Your task to perform on an android device: See recent photos Image 0: 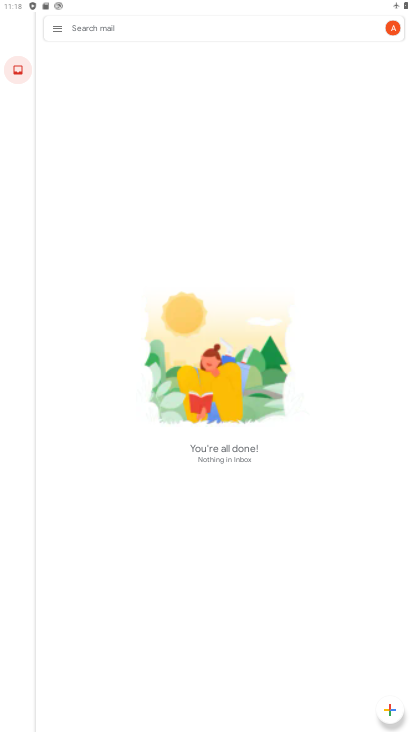
Step 0: press home button
Your task to perform on an android device: See recent photos Image 1: 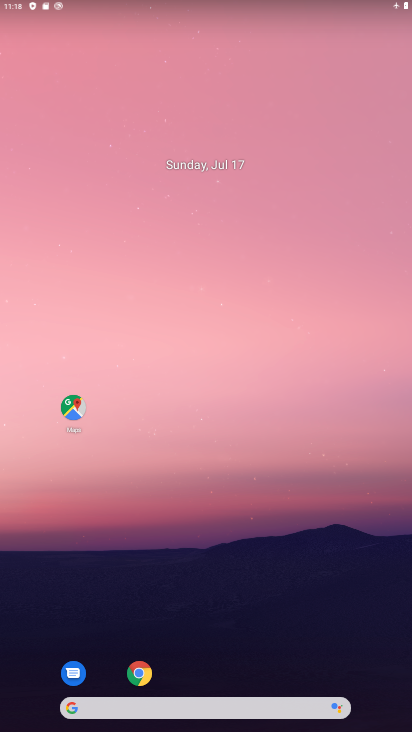
Step 1: drag from (262, 622) to (114, 6)
Your task to perform on an android device: See recent photos Image 2: 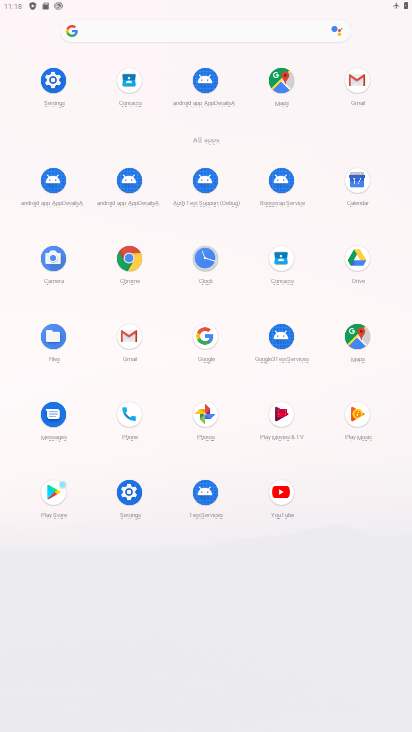
Step 2: click (206, 415)
Your task to perform on an android device: See recent photos Image 3: 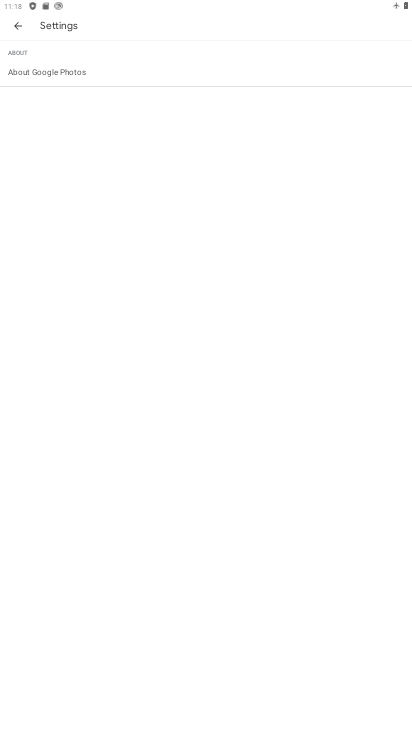
Step 3: task complete